Your task to perform on an android device: Go to accessibility settings Image 0: 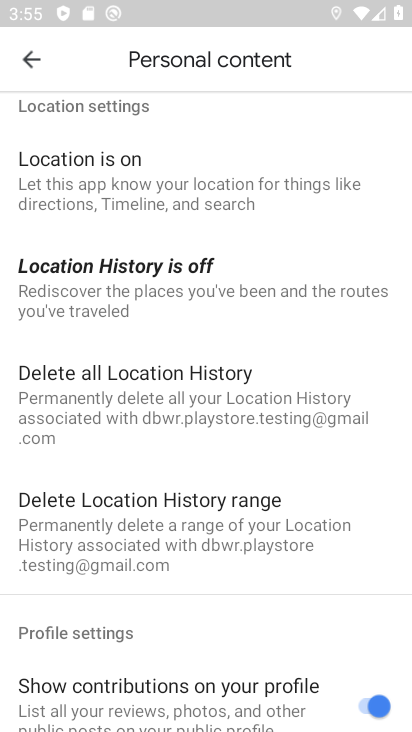
Step 0: drag from (244, 437) to (280, 204)
Your task to perform on an android device: Go to accessibility settings Image 1: 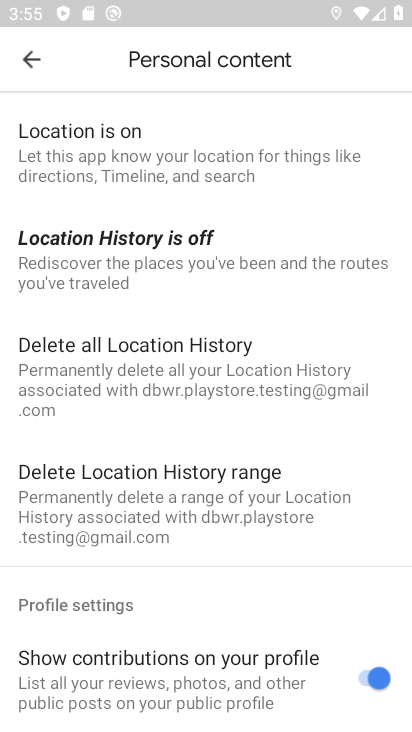
Step 1: press home button
Your task to perform on an android device: Go to accessibility settings Image 2: 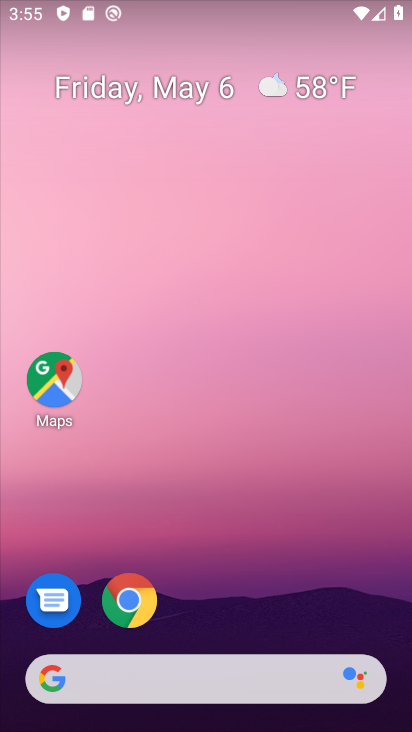
Step 2: drag from (176, 594) to (286, 1)
Your task to perform on an android device: Go to accessibility settings Image 3: 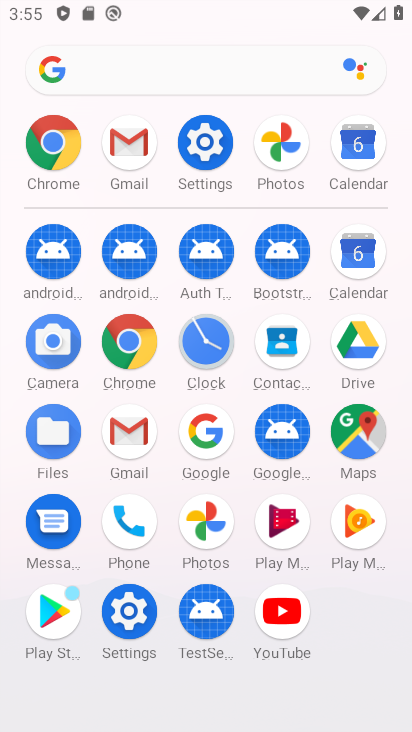
Step 3: click (139, 626)
Your task to perform on an android device: Go to accessibility settings Image 4: 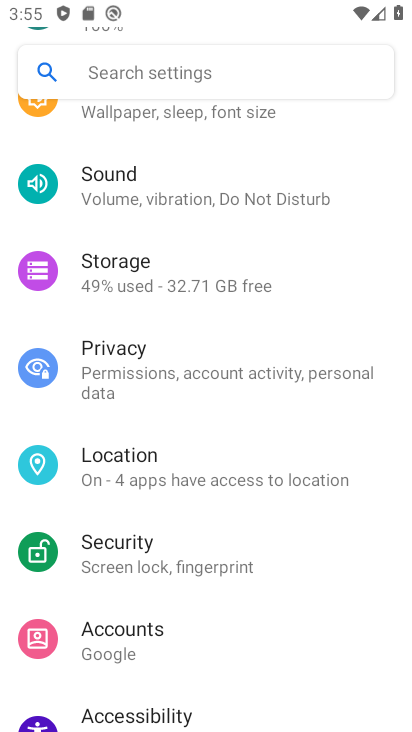
Step 4: click (145, 714)
Your task to perform on an android device: Go to accessibility settings Image 5: 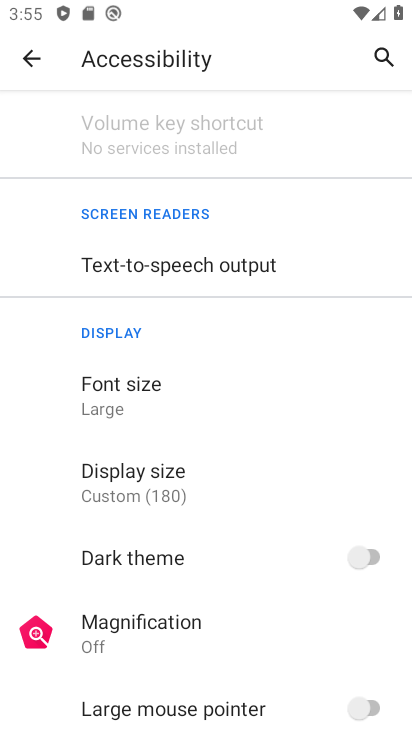
Step 5: task complete